Your task to perform on an android device: Open Maps and search for coffee Image 0: 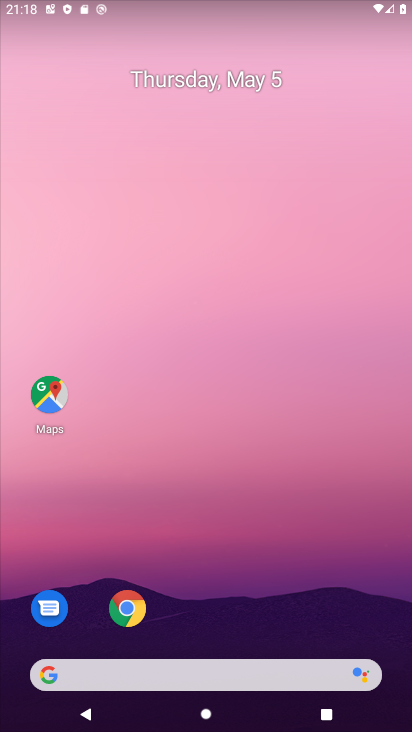
Step 0: drag from (342, 677) to (248, 39)
Your task to perform on an android device: Open Maps and search for coffee Image 1: 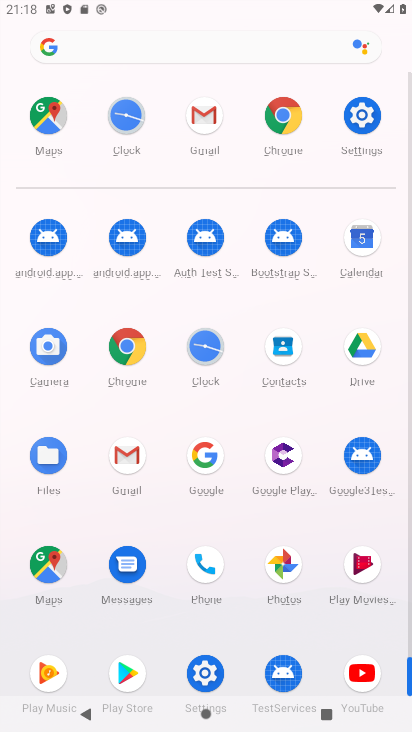
Step 1: click (58, 574)
Your task to perform on an android device: Open Maps and search for coffee Image 2: 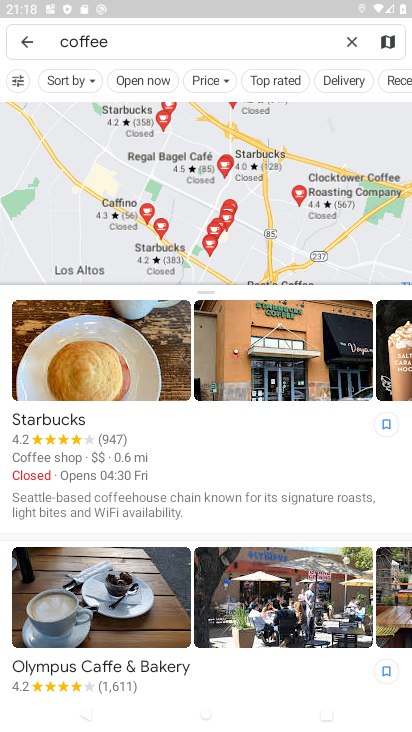
Step 2: task complete